Your task to perform on an android device: check google app version Image 0: 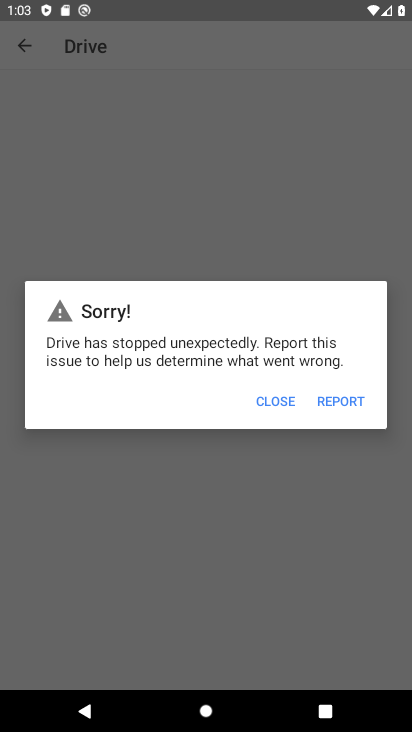
Step 0: press home button
Your task to perform on an android device: check google app version Image 1: 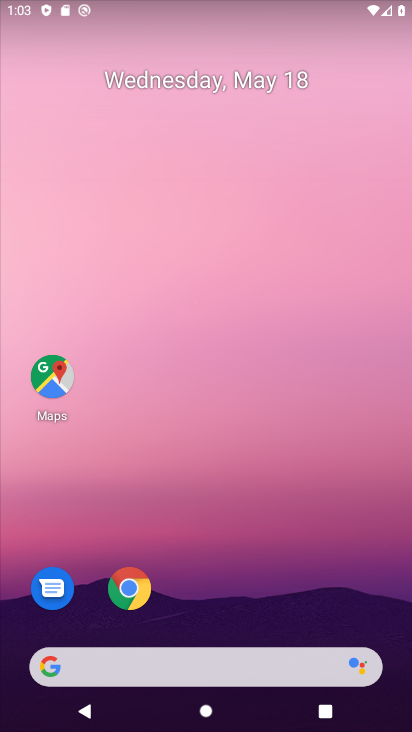
Step 1: drag from (349, 628) to (345, 138)
Your task to perform on an android device: check google app version Image 2: 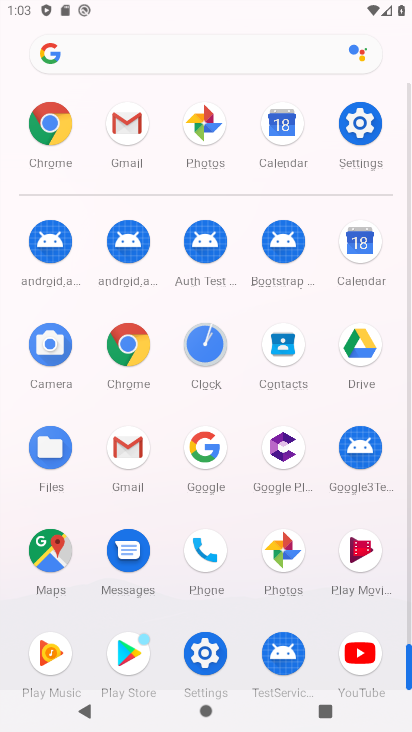
Step 2: click (203, 469)
Your task to perform on an android device: check google app version Image 3: 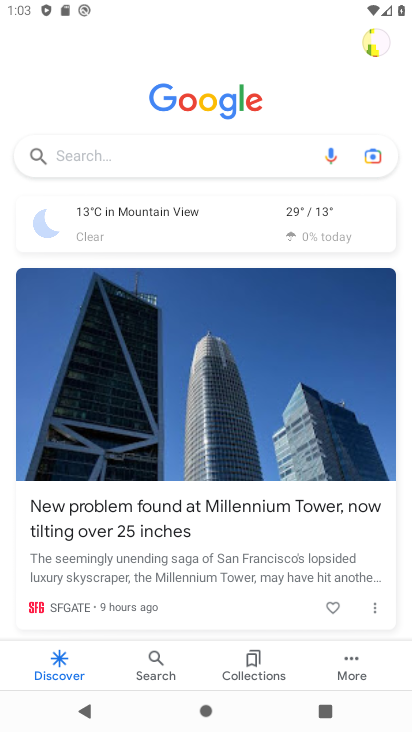
Step 3: click (353, 667)
Your task to perform on an android device: check google app version Image 4: 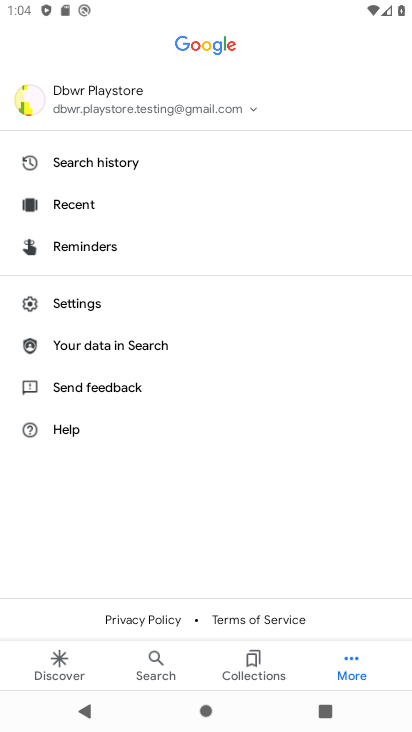
Step 4: click (96, 304)
Your task to perform on an android device: check google app version Image 5: 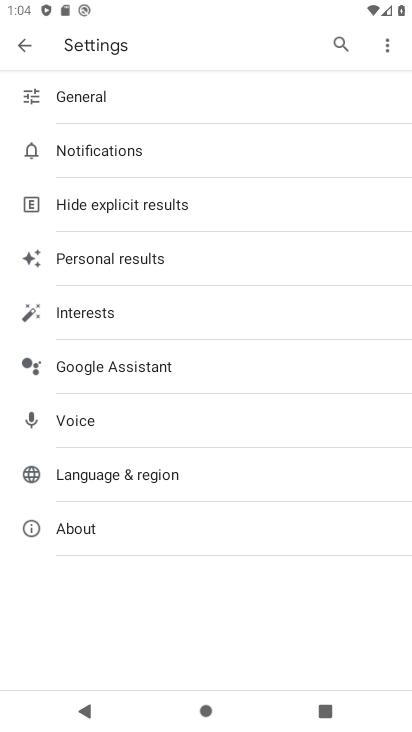
Step 5: click (196, 539)
Your task to perform on an android device: check google app version Image 6: 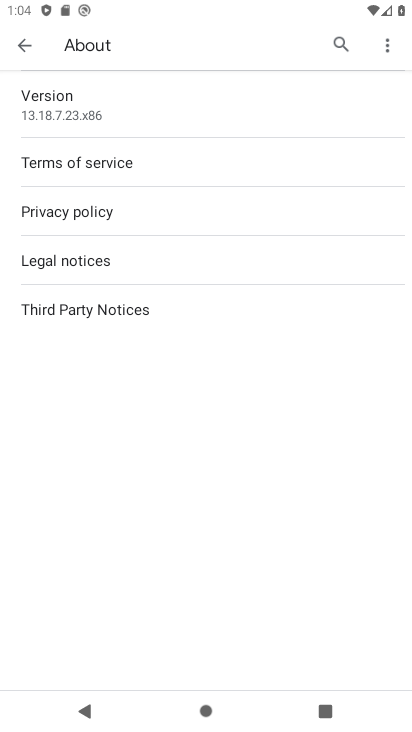
Step 6: task complete